Your task to perform on an android device: Search for vegetarian restaurants on Maps Image 0: 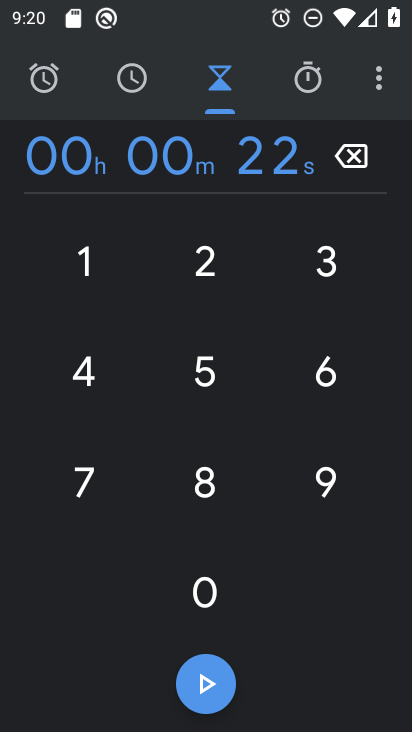
Step 0: press home button
Your task to perform on an android device: Search for vegetarian restaurants on Maps Image 1: 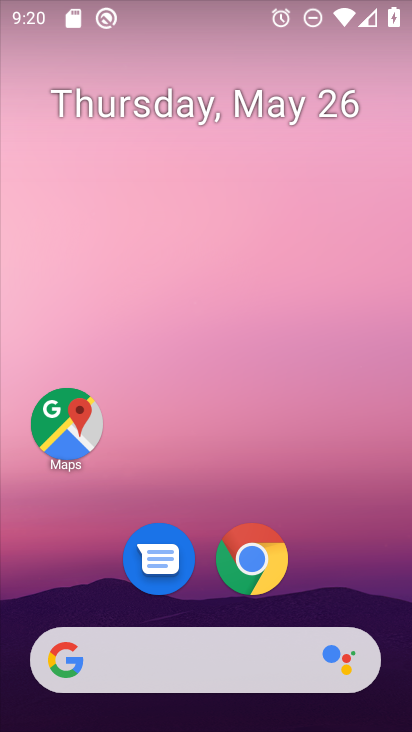
Step 1: drag from (304, 576) to (290, 77)
Your task to perform on an android device: Search for vegetarian restaurants on Maps Image 2: 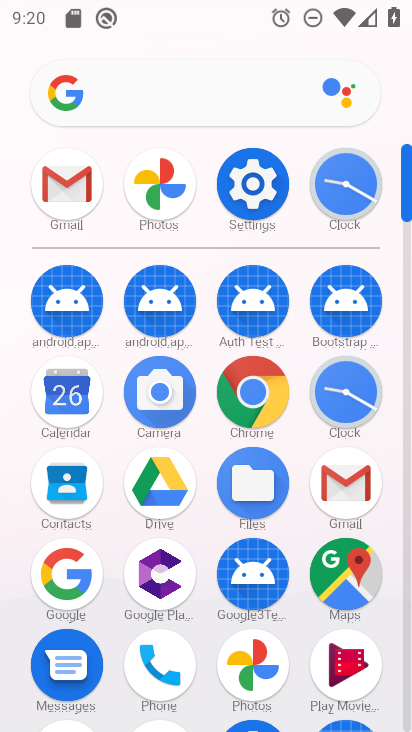
Step 2: click (349, 568)
Your task to perform on an android device: Search for vegetarian restaurants on Maps Image 3: 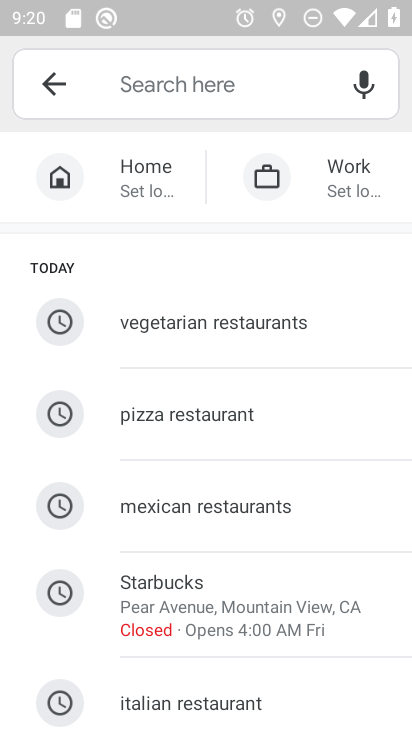
Step 3: click (214, 329)
Your task to perform on an android device: Search for vegetarian restaurants on Maps Image 4: 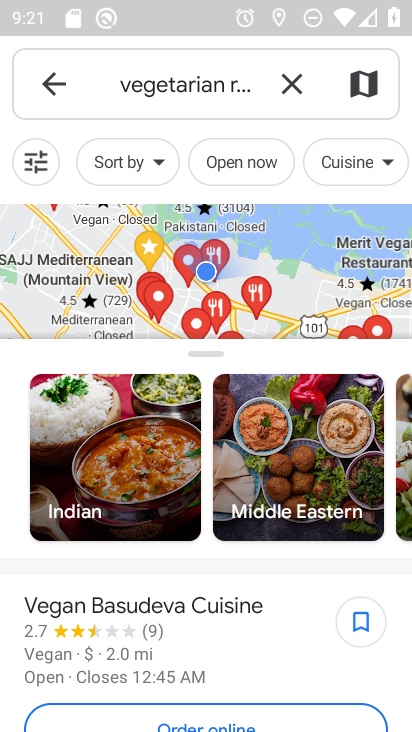
Step 4: task complete